Your task to perform on an android device: Do I have any events this weekend? Image 0: 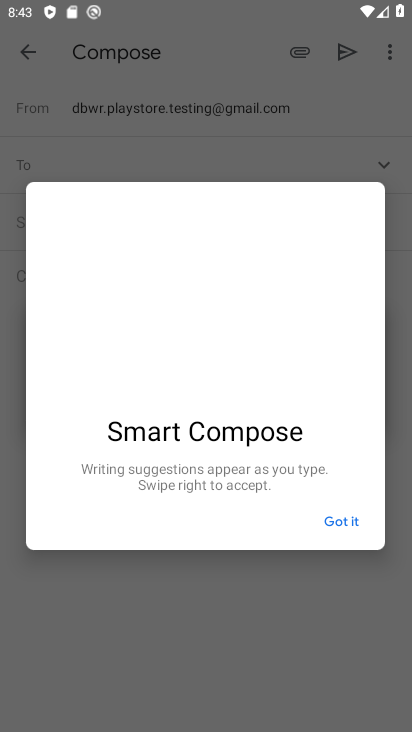
Step 0: click (341, 528)
Your task to perform on an android device: Do I have any events this weekend? Image 1: 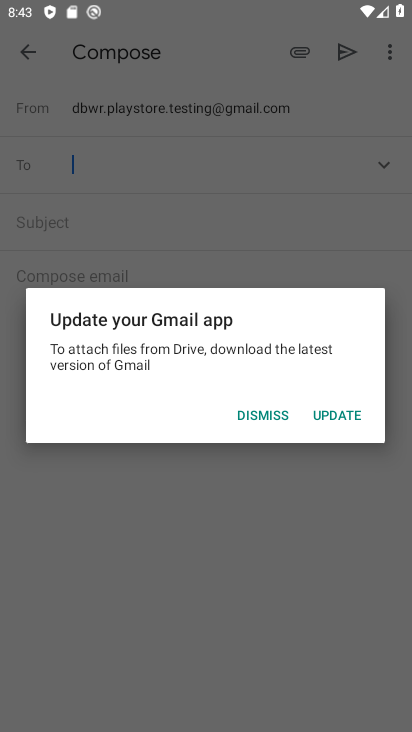
Step 1: press home button
Your task to perform on an android device: Do I have any events this weekend? Image 2: 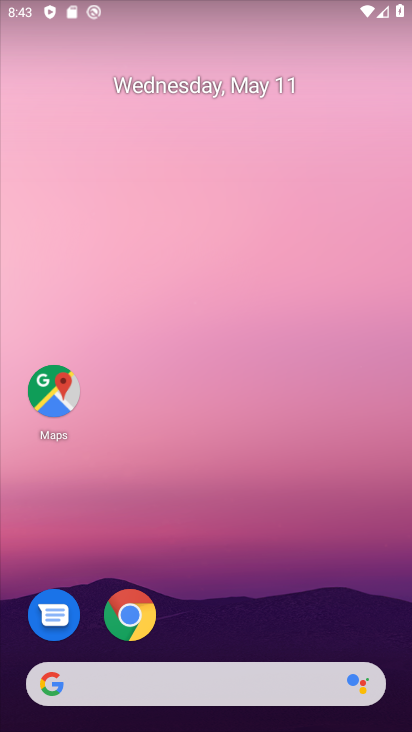
Step 2: drag from (26, 544) to (259, 79)
Your task to perform on an android device: Do I have any events this weekend? Image 3: 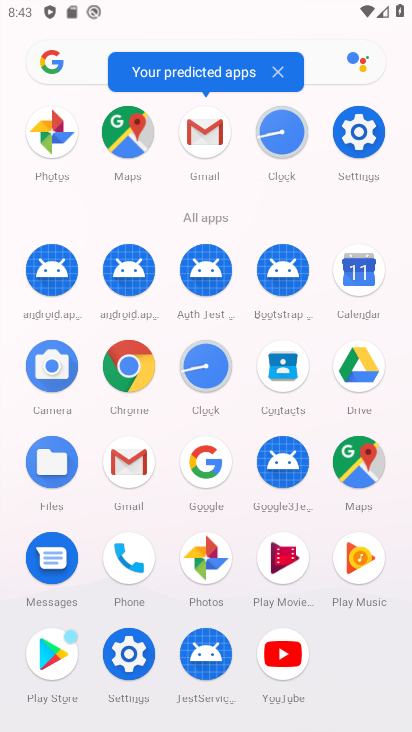
Step 3: click (367, 273)
Your task to perform on an android device: Do I have any events this weekend? Image 4: 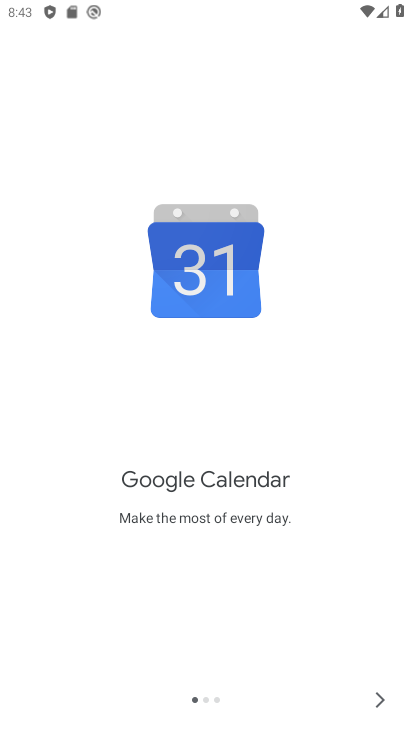
Step 4: click (382, 700)
Your task to perform on an android device: Do I have any events this weekend? Image 5: 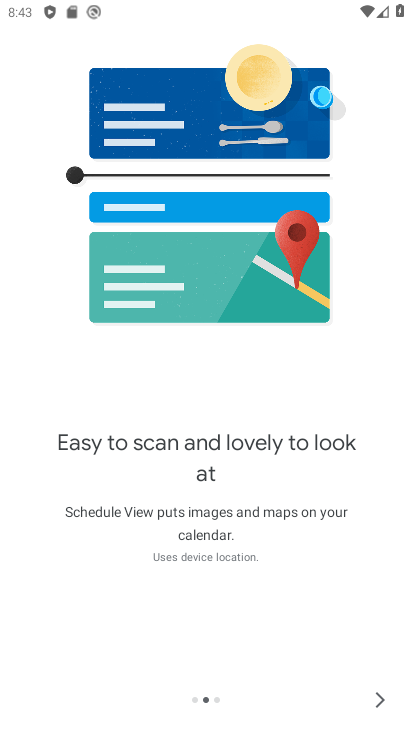
Step 5: click (382, 700)
Your task to perform on an android device: Do I have any events this weekend? Image 6: 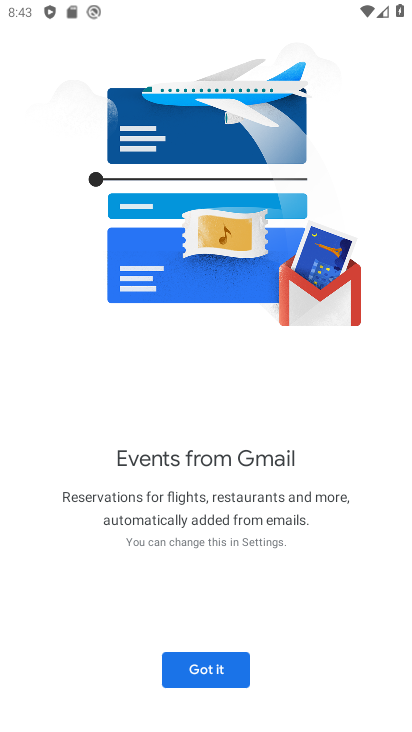
Step 6: click (181, 676)
Your task to perform on an android device: Do I have any events this weekend? Image 7: 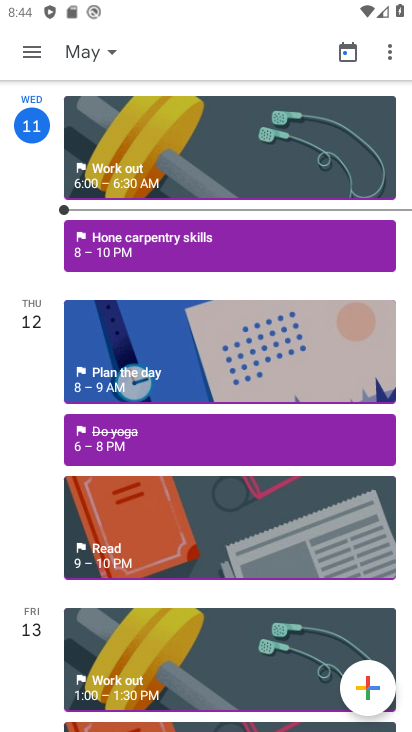
Step 7: click (98, 61)
Your task to perform on an android device: Do I have any events this weekend? Image 8: 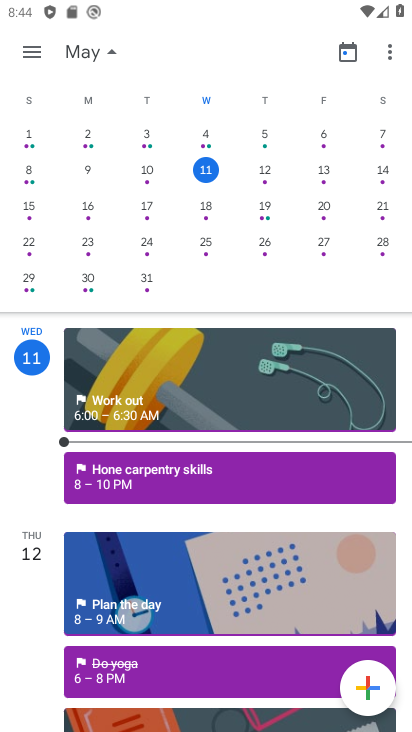
Step 8: click (385, 167)
Your task to perform on an android device: Do I have any events this weekend? Image 9: 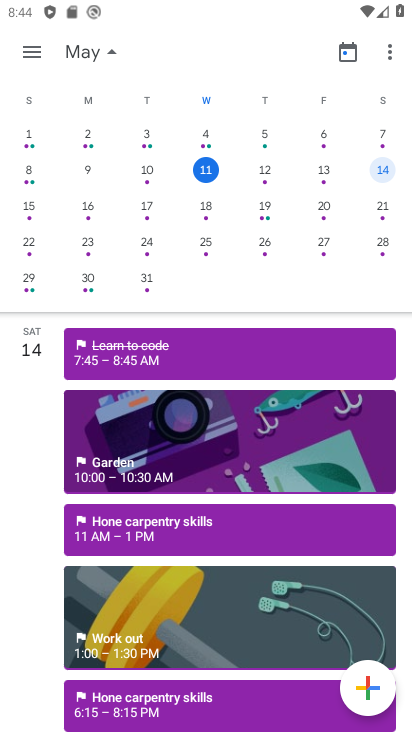
Step 9: click (33, 215)
Your task to perform on an android device: Do I have any events this weekend? Image 10: 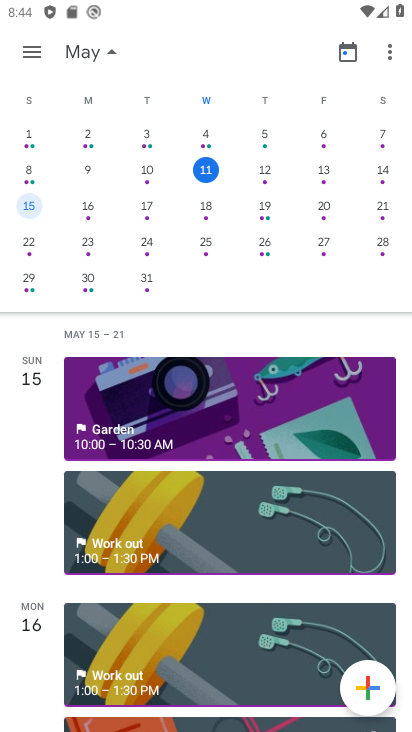
Step 10: task complete